Your task to perform on an android device: Go to Yahoo.com Image 0: 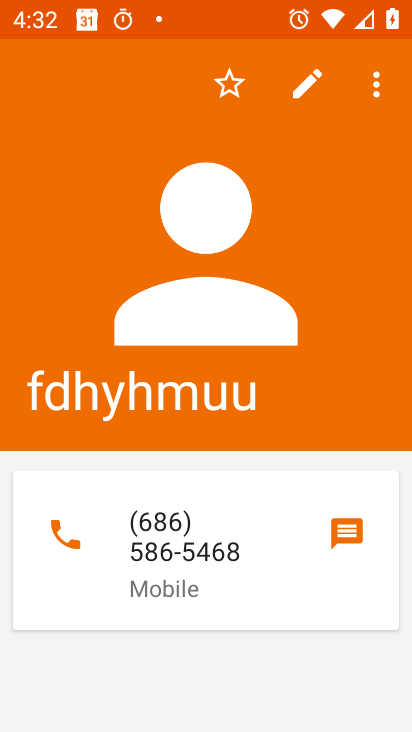
Step 0: press home button
Your task to perform on an android device: Go to Yahoo.com Image 1: 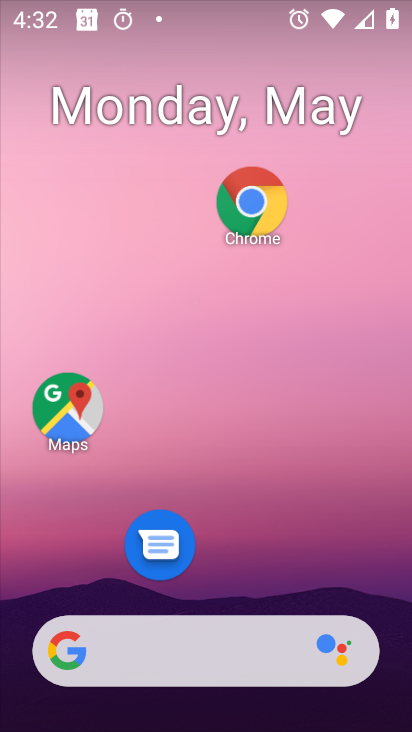
Step 1: click (277, 198)
Your task to perform on an android device: Go to Yahoo.com Image 2: 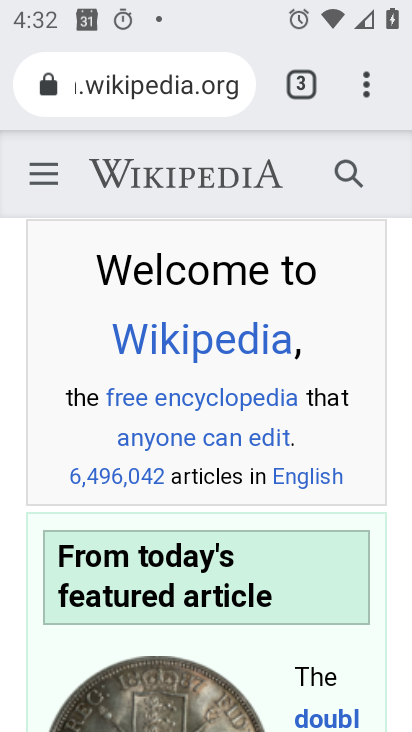
Step 2: click (304, 82)
Your task to perform on an android device: Go to Yahoo.com Image 3: 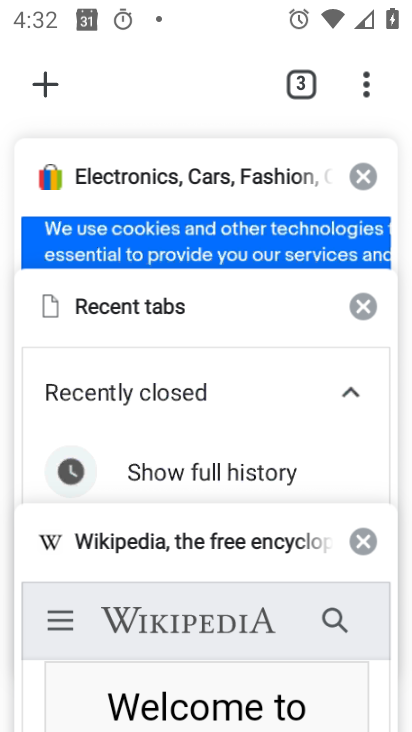
Step 3: click (52, 90)
Your task to perform on an android device: Go to Yahoo.com Image 4: 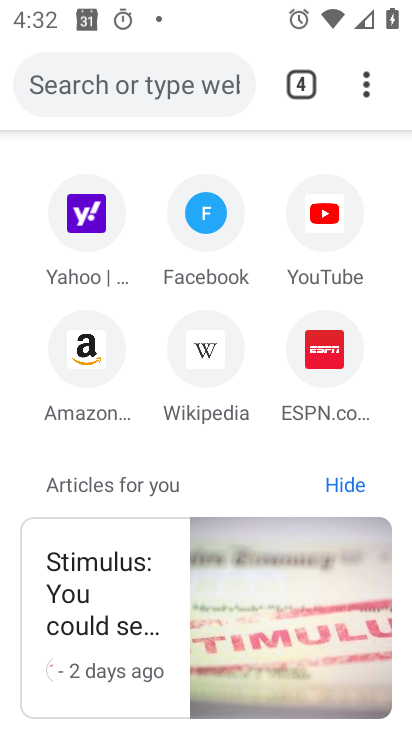
Step 4: click (86, 221)
Your task to perform on an android device: Go to Yahoo.com Image 5: 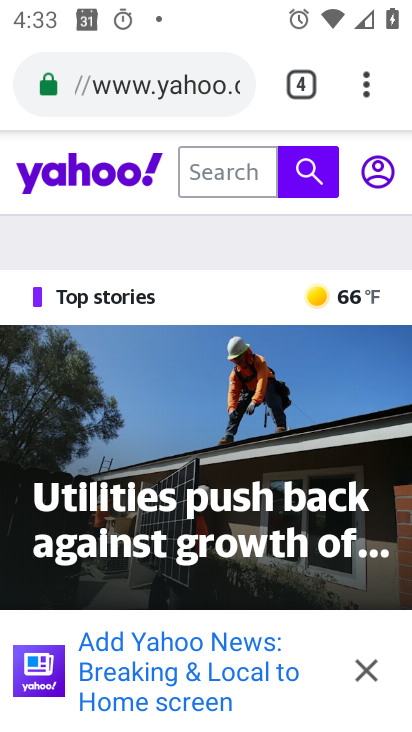
Step 5: task complete